Your task to perform on an android device: turn off data saver in the chrome app Image 0: 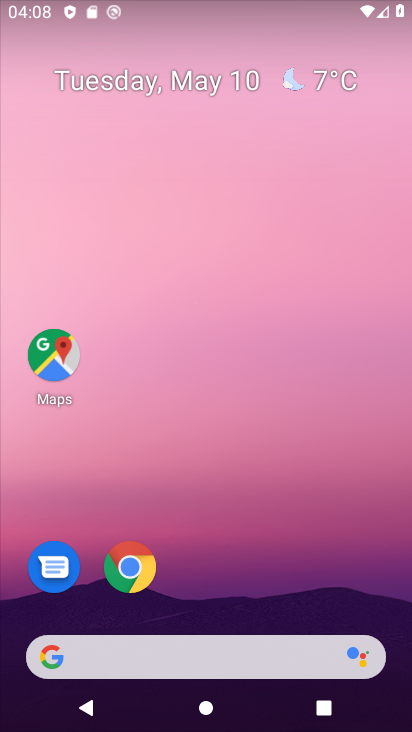
Step 0: click (129, 566)
Your task to perform on an android device: turn off data saver in the chrome app Image 1: 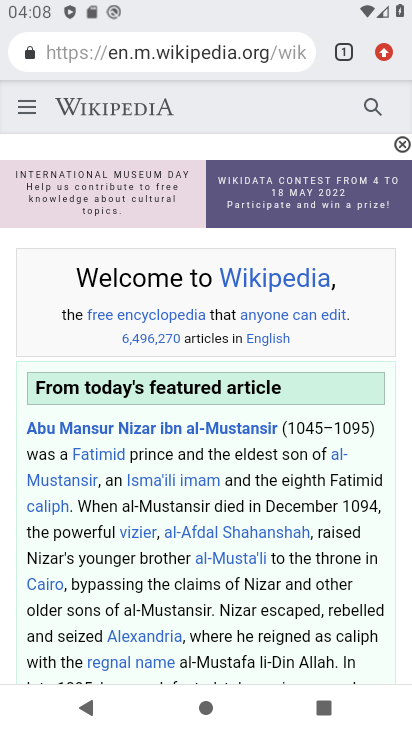
Step 1: click (387, 52)
Your task to perform on an android device: turn off data saver in the chrome app Image 2: 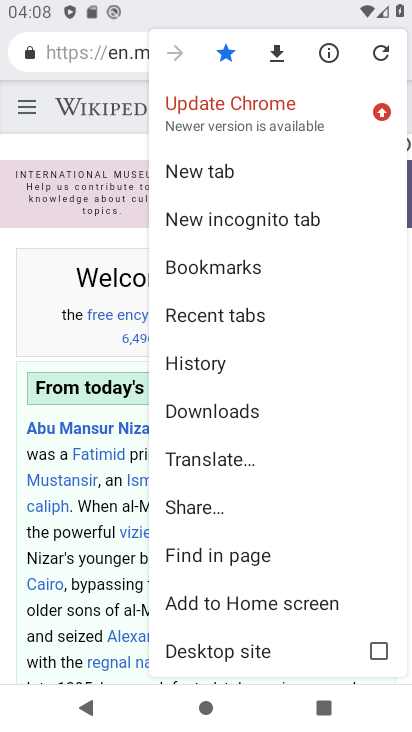
Step 2: drag from (240, 486) to (269, 333)
Your task to perform on an android device: turn off data saver in the chrome app Image 3: 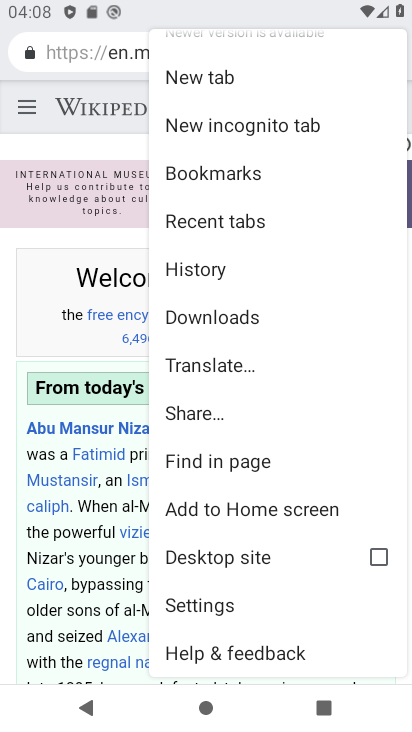
Step 3: click (218, 611)
Your task to perform on an android device: turn off data saver in the chrome app Image 4: 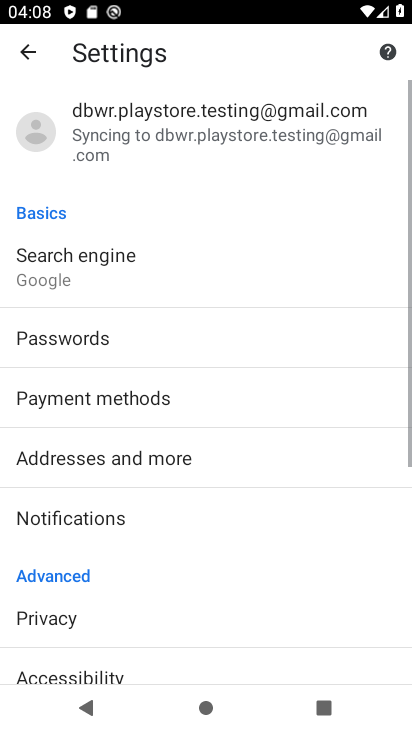
Step 4: drag from (210, 593) to (241, 291)
Your task to perform on an android device: turn off data saver in the chrome app Image 5: 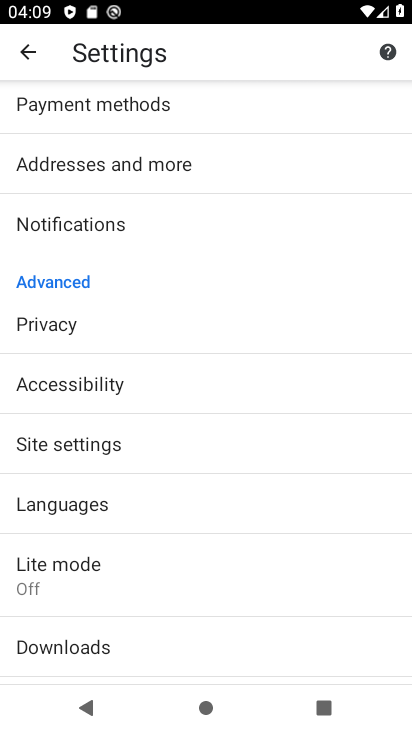
Step 5: click (62, 563)
Your task to perform on an android device: turn off data saver in the chrome app Image 6: 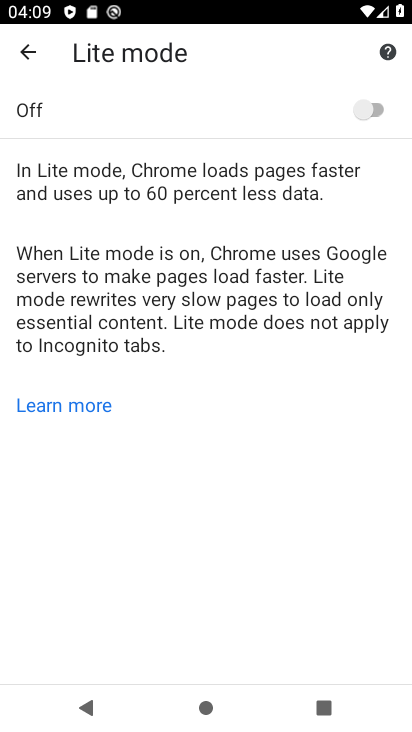
Step 6: task complete